Your task to perform on an android device: allow cookies in the chrome app Image 0: 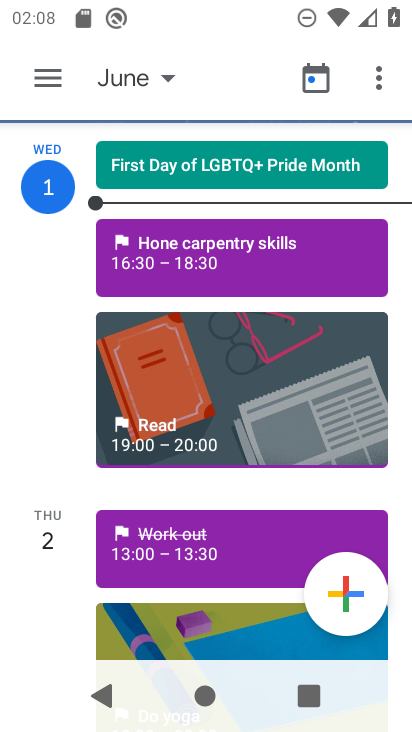
Step 0: press home button
Your task to perform on an android device: allow cookies in the chrome app Image 1: 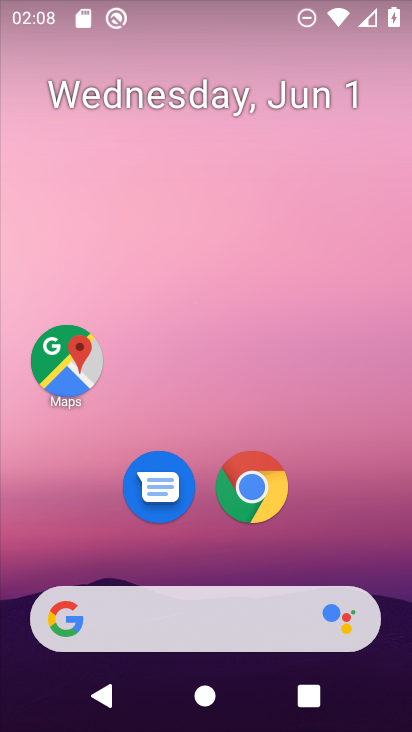
Step 1: drag from (316, 523) to (296, 256)
Your task to perform on an android device: allow cookies in the chrome app Image 2: 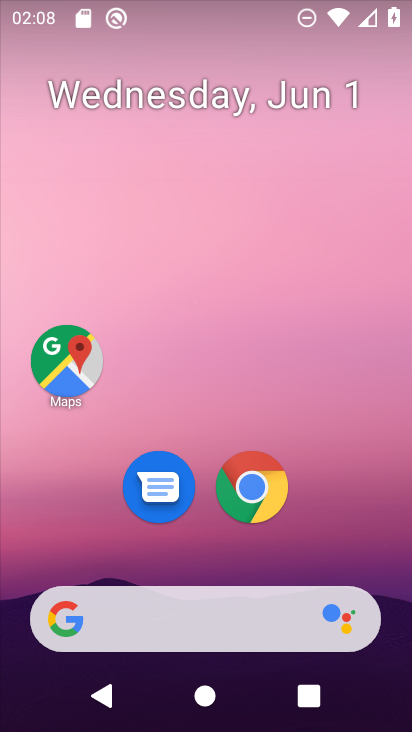
Step 2: drag from (294, 539) to (327, 156)
Your task to perform on an android device: allow cookies in the chrome app Image 3: 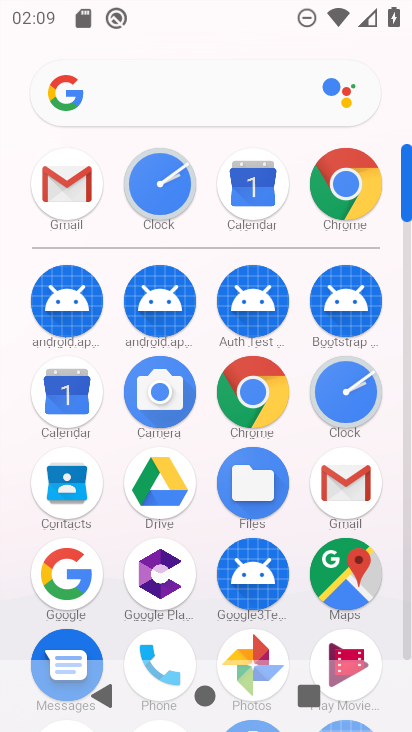
Step 3: click (351, 167)
Your task to perform on an android device: allow cookies in the chrome app Image 4: 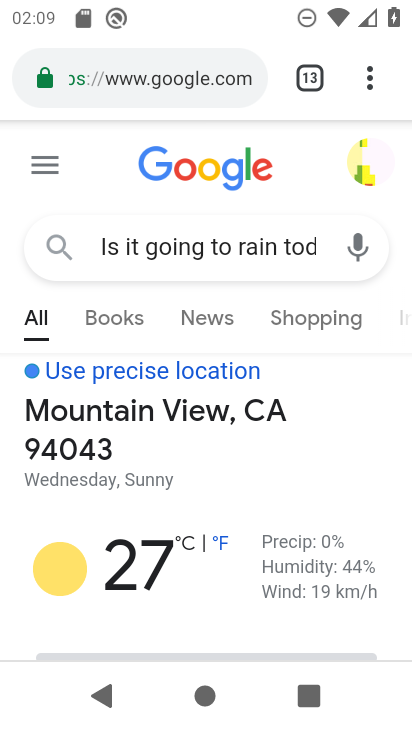
Step 4: click (381, 71)
Your task to perform on an android device: allow cookies in the chrome app Image 5: 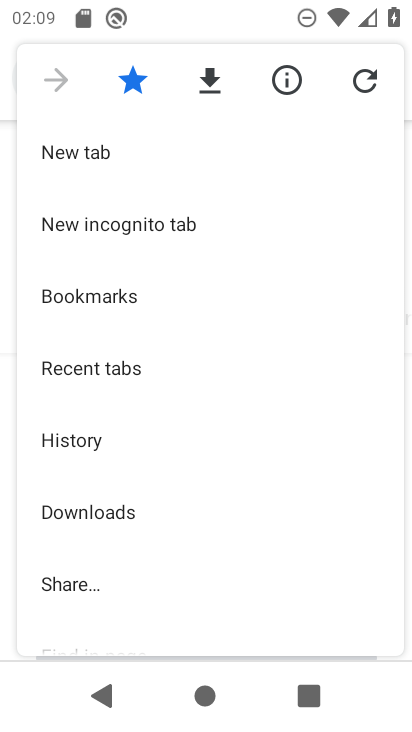
Step 5: drag from (132, 591) to (140, 267)
Your task to perform on an android device: allow cookies in the chrome app Image 6: 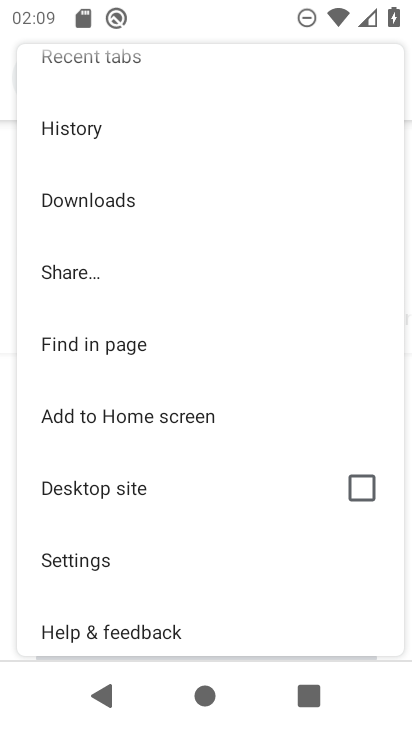
Step 6: click (104, 571)
Your task to perform on an android device: allow cookies in the chrome app Image 7: 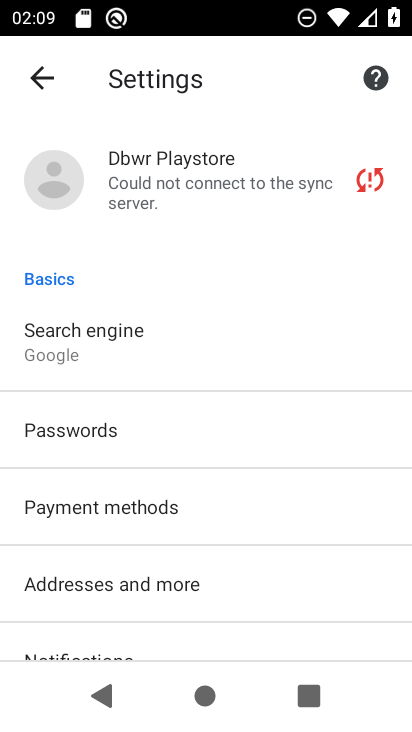
Step 7: drag from (183, 574) to (189, 327)
Your task to perform on an android device: allow cookies in the chrome app Image 8: 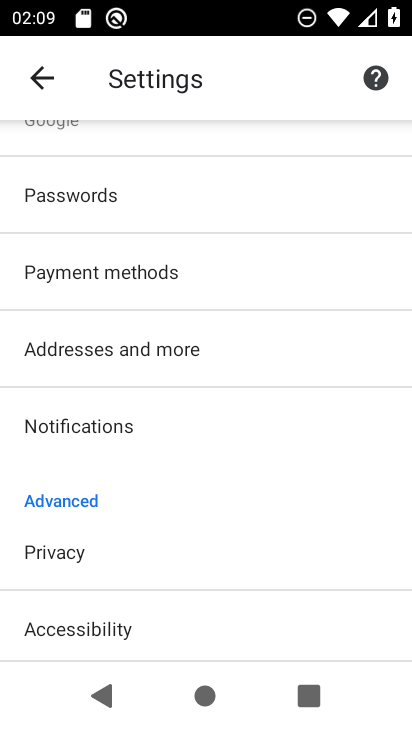
Step 8: drag from (191, 554) to (189, 304)
Your task to perform on an android device: allow cookies in the chrome app Image 9: 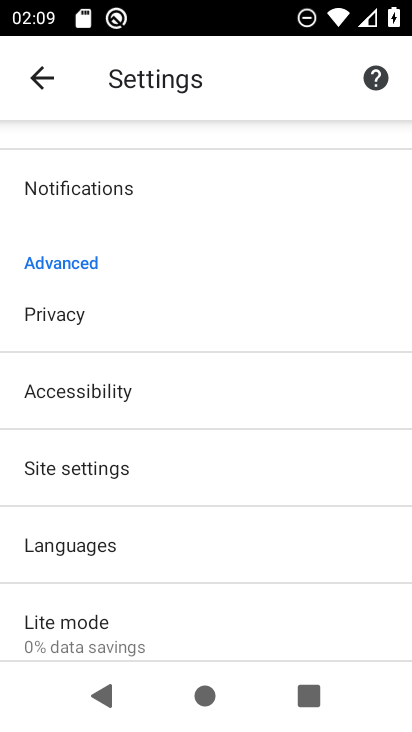
Step 9: drag from (130, 544) to (166, 330)
Your task to perform on an android device: allow cookies in the chrome app Image 10: 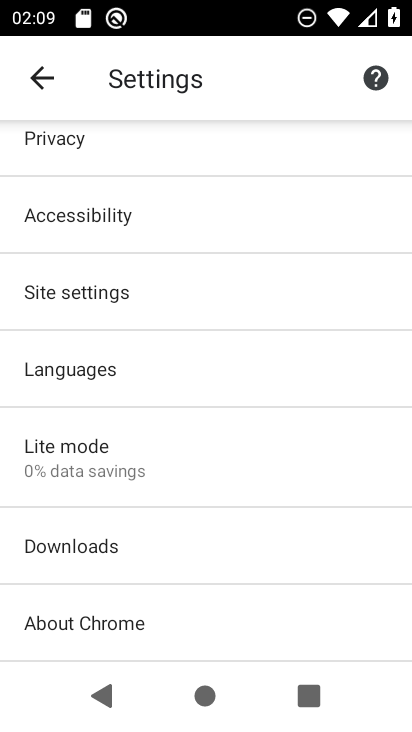
Step 10: click (183, 267)
Your task to perform on an android device: allow cookies in the chrome app Image 11: 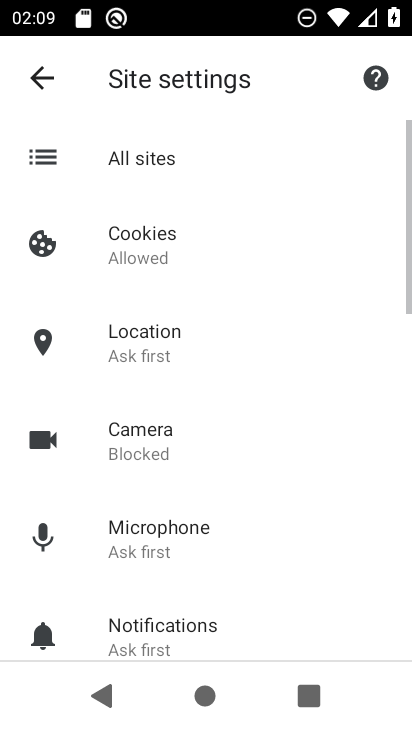
Step 11: click (113, 234)
Your task to perform on an android device: allow cookies in the chrome app Image 12: 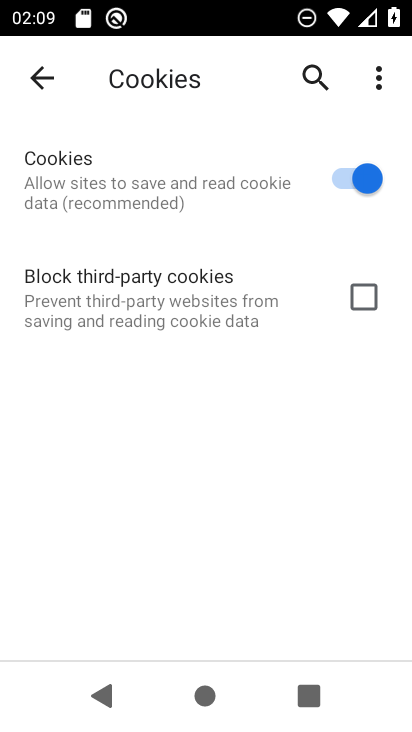
Step 12: task complete